Your task to perform on an android device: change the clock display to analog Image 0: 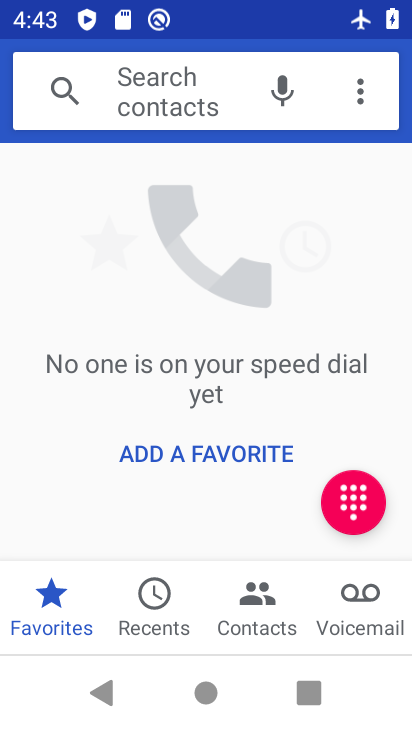
Step 0: press back button
Your task to perform on an android device: change the clock display to analog Image 1: 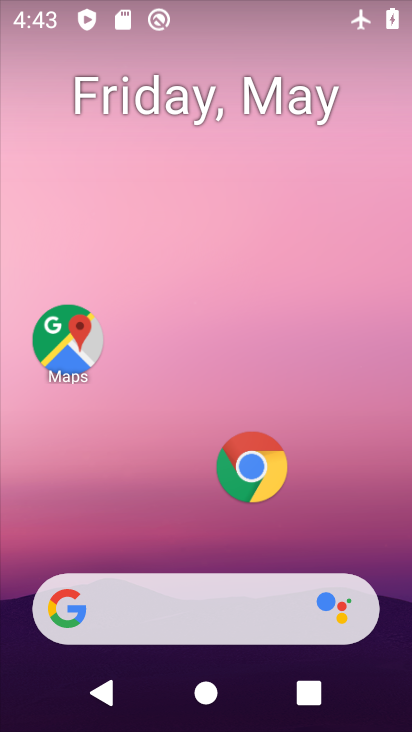
Step 1: drag from (320, 569) to (188, 132)
Your task to perform on an android device: change the clock display to analog Image 2: 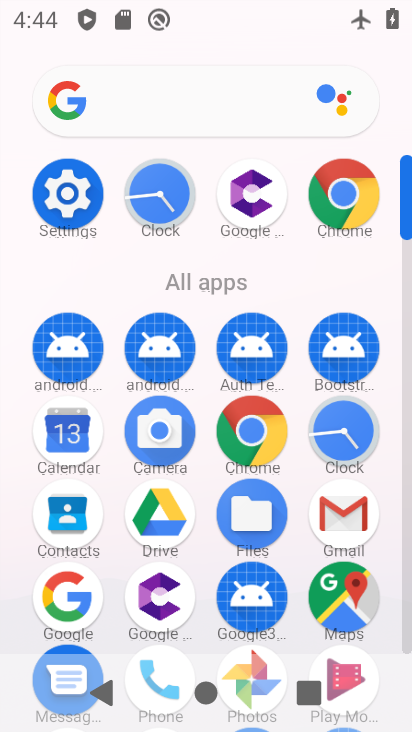
Step 2: click (152, 195)
Your task to perform on an android device: change the clock display to analog Image 3: 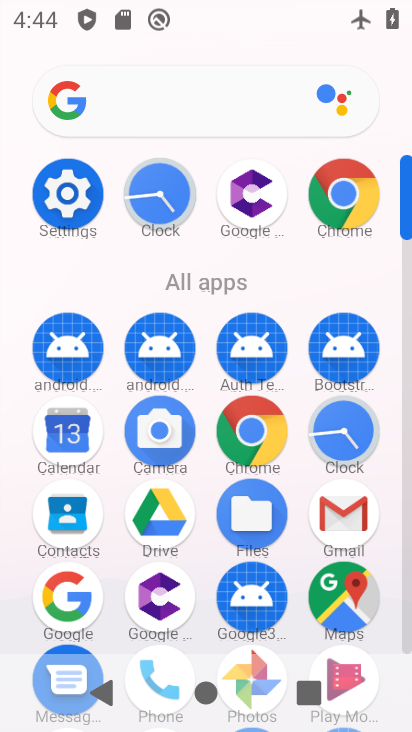
Step 3: click (152, 195)
Your task to perform on an android device: change the clock display to analog Image 4: 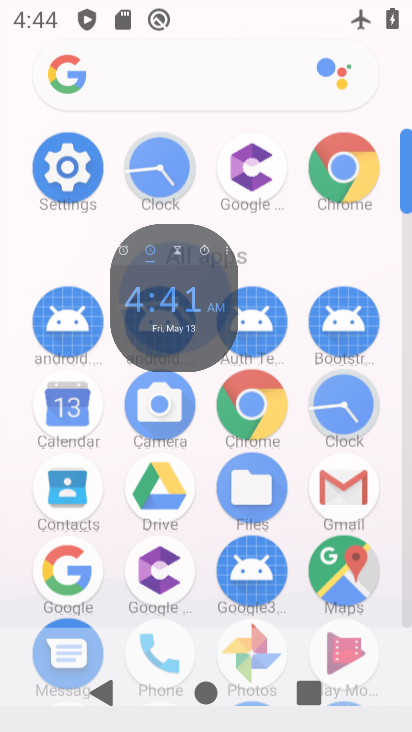
Step 4: click (152, 195)
Your task to perform on an android device: change the clock display to analog Image 5: 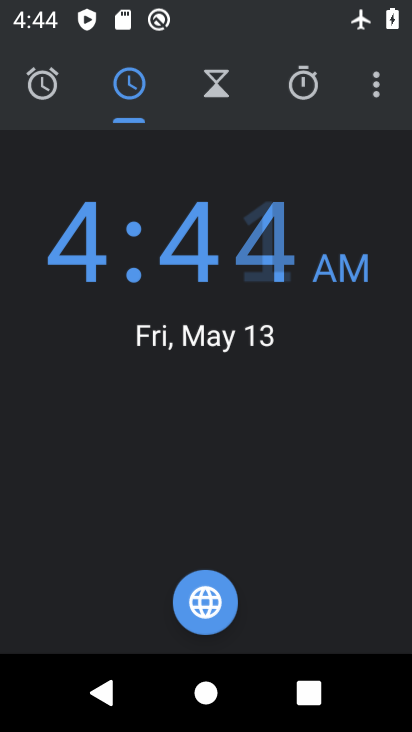
Step 5: click (152, 195)
Your task to perform on an android device: change the clock display to analog Image 6: 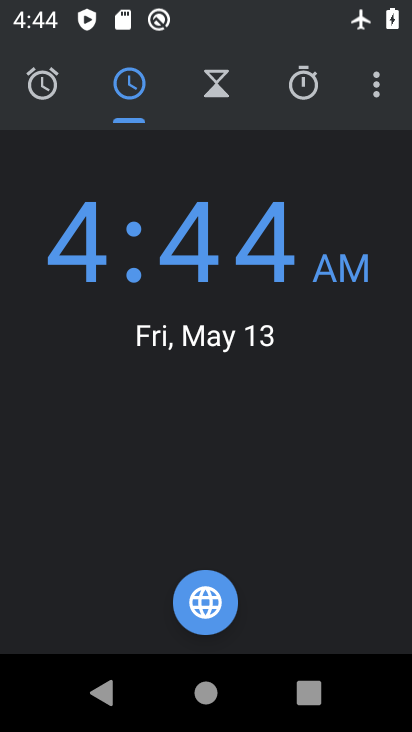
Step 6: click (383, 85)
Your task to perform on an android device: change the clock display to analog Image 7: 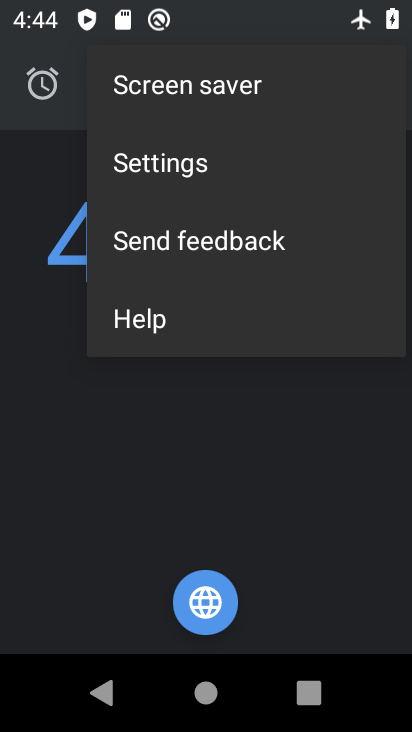
Step 7: click (177, 165)
Your task to perform on an android device: change the clock display to analog Image 8: 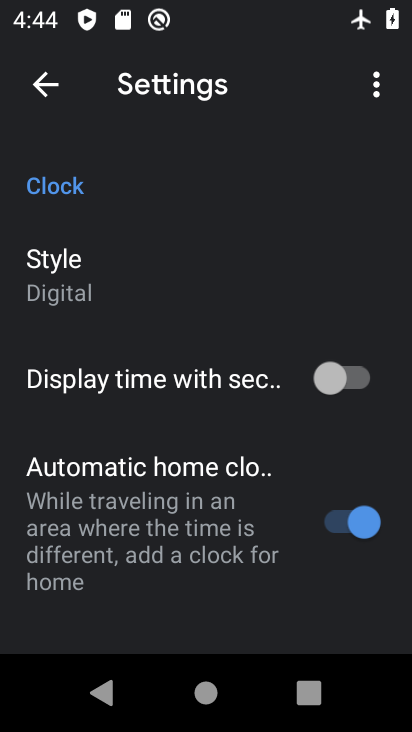
Step 8: click (144, 282)
Your task to perform on an android device: change the clock display to analog Image 9: 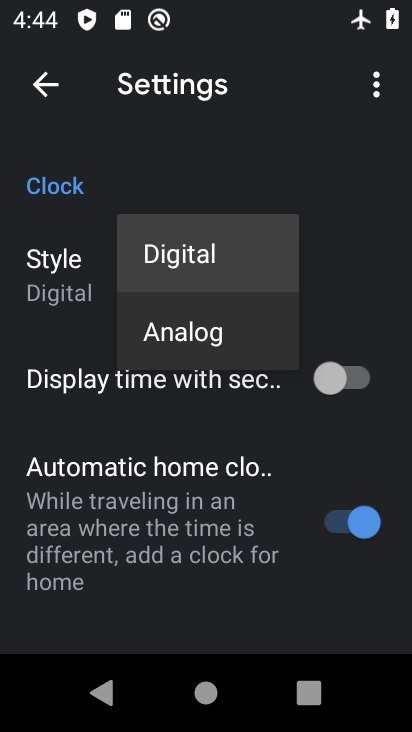
Step 9: click (177, 331)
Your task to perform on an android device: change the clock display to analog Image 10: 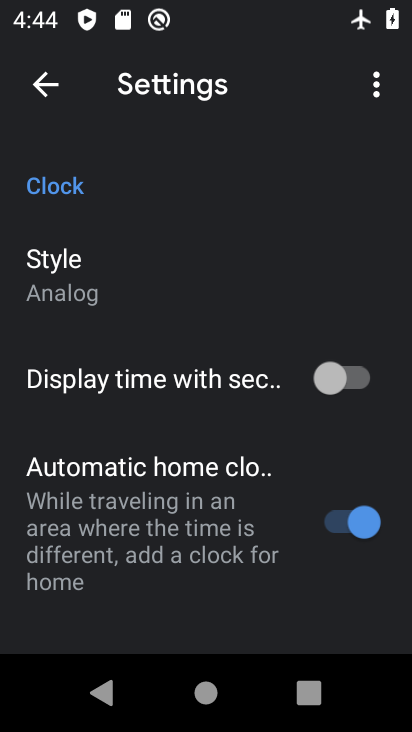
Step 10: task complete